Your task to perform on an android device: What is the news today? Image 0: 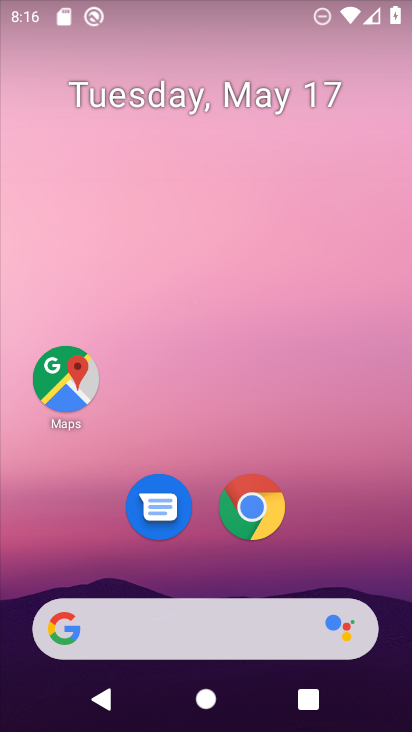
Step 0: click (126, 630)
Your task to perform on an android device: What is the news today? Image 1: 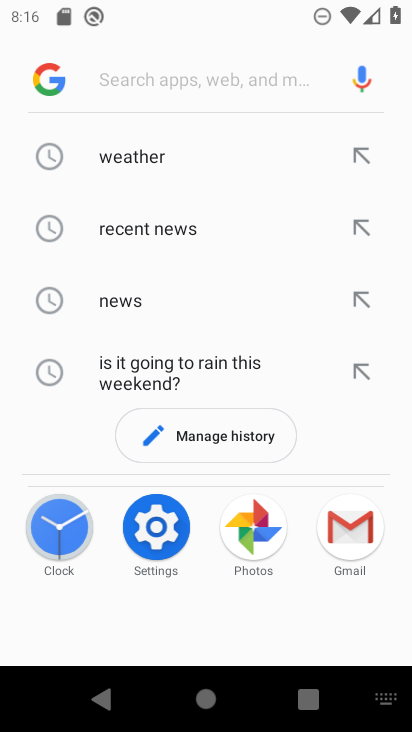
Step 1: type "news today"
Your task to perform on an android device: What is the news today? Image 2: 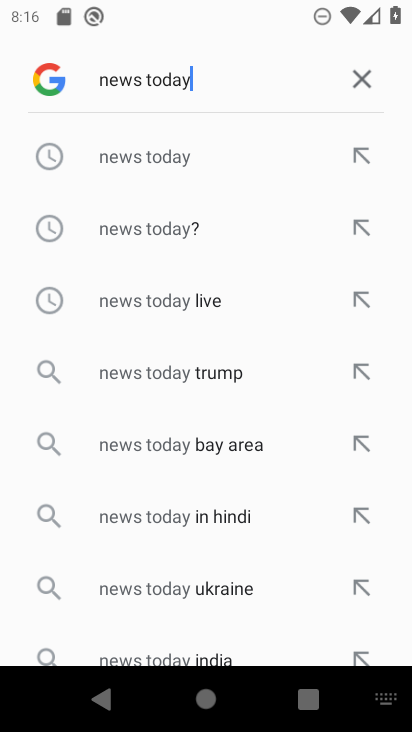
Step 2: click (181, 156)
Your task to perform on an android device: What is the news today? Image 3: 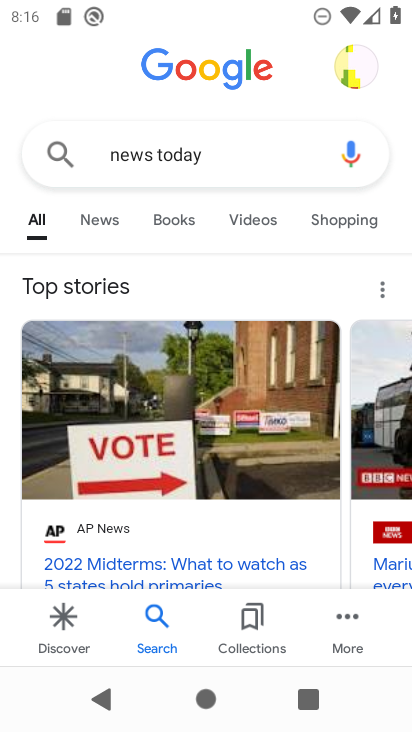
Step 3: drag from (201, 493) to (204, 262)
Your task to perform on an android device: What is the news today? Image 4: 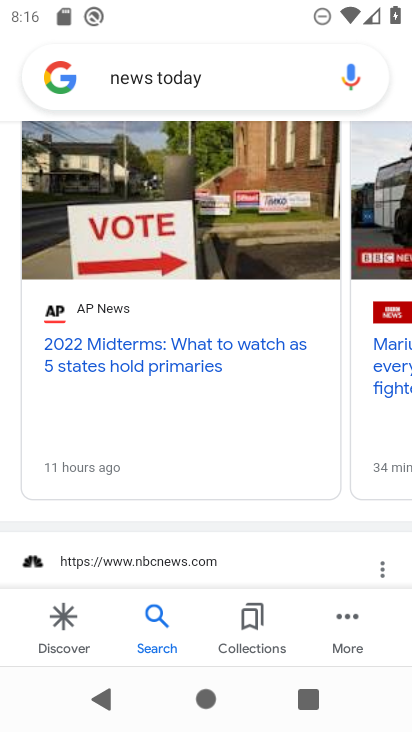
Step 4: drag from (263, 338) to (34, 291)
Your task to perform on an android device: What is the news today? Image 5: 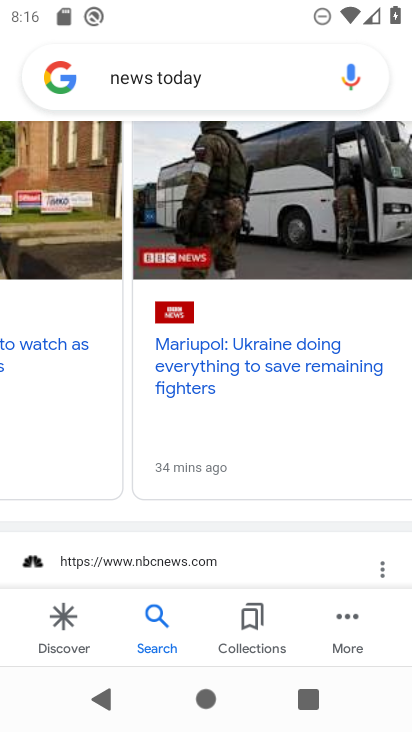
Step 5: click (242, 218)
Your task to perform on an android device: What is the news today? Image 6: 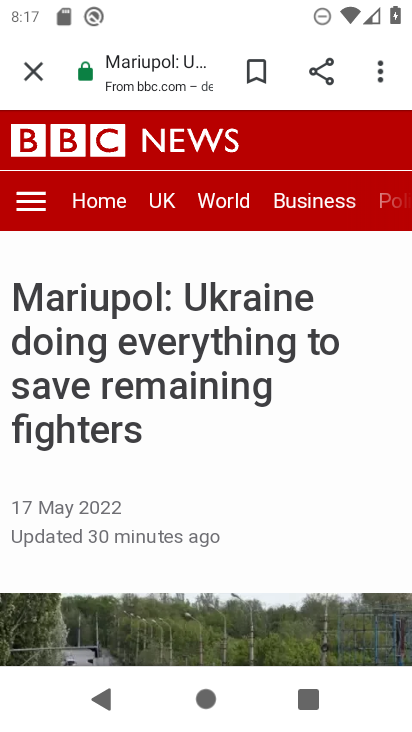
Step 6: task complete